Your task to perform on an android device: Open internet settings Image 0: 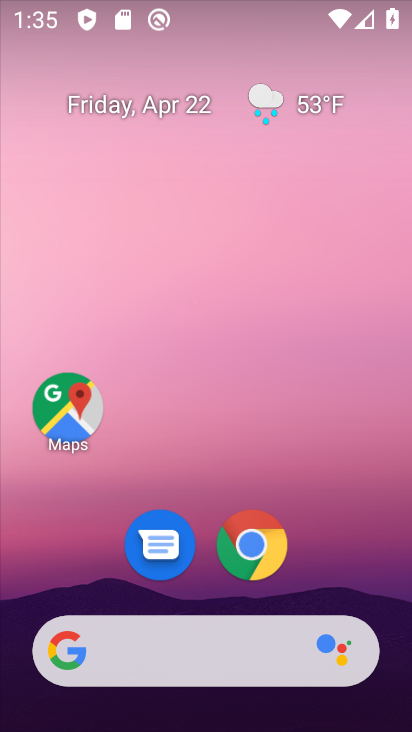
Step 0: drag from (210, 432) to (229, 21)
Your task to perform on an android device: Open internet settings Image 1: 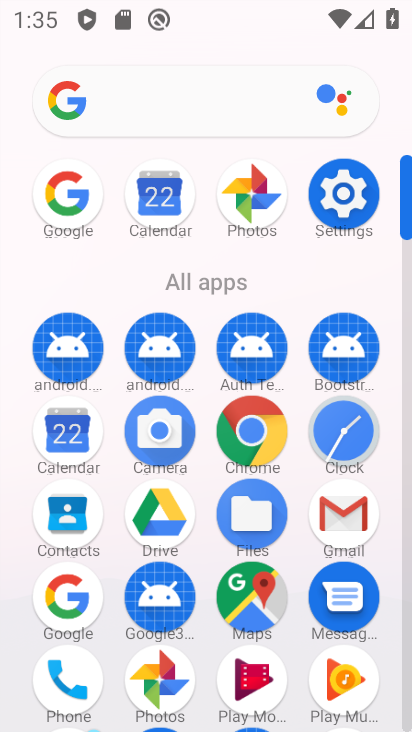
Step 1: click (342, 191)
Your task to perform on an android device: Open internet settings Image 2: 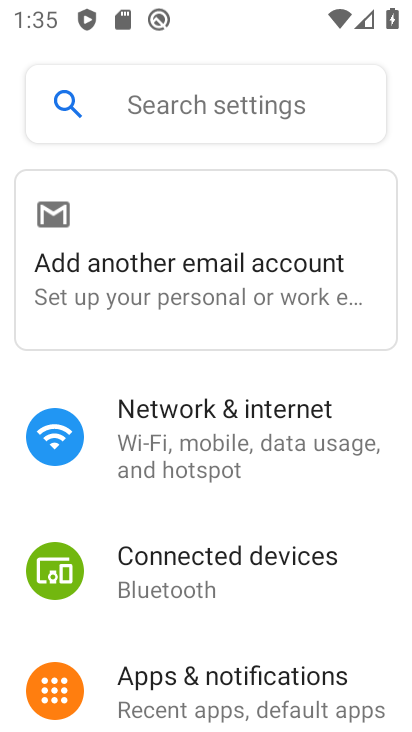
Step 2: click (281, 409)
Your task to perform on an android device: Open internet settings Image 3: 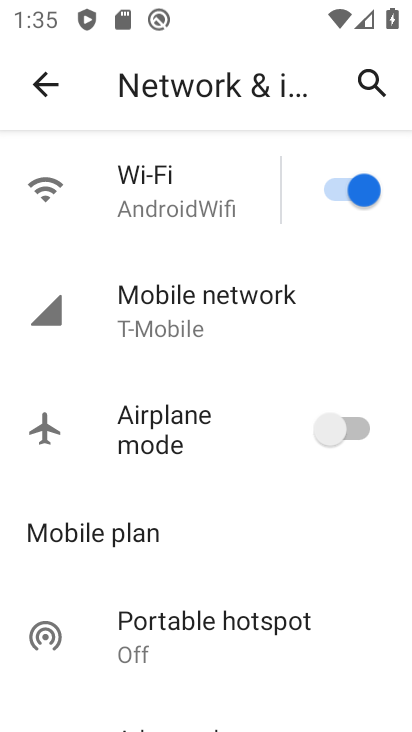
Step 3: task complete